Your task to perform on an android device: Search for "usb-b" on costco, select the first entry, add it to the cart, then select checkout. Image 0: 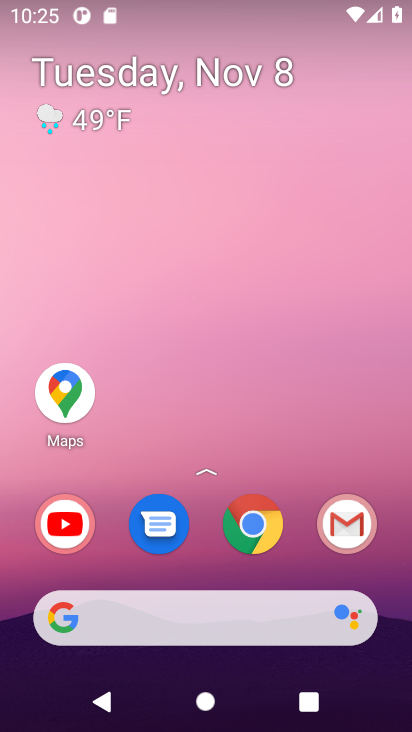
Step 0: click (261, 524)
Your task to perform on an android device: Search for "usb-b" on costco, select the first entry, add it to the cart, then select checkout. Image 1: 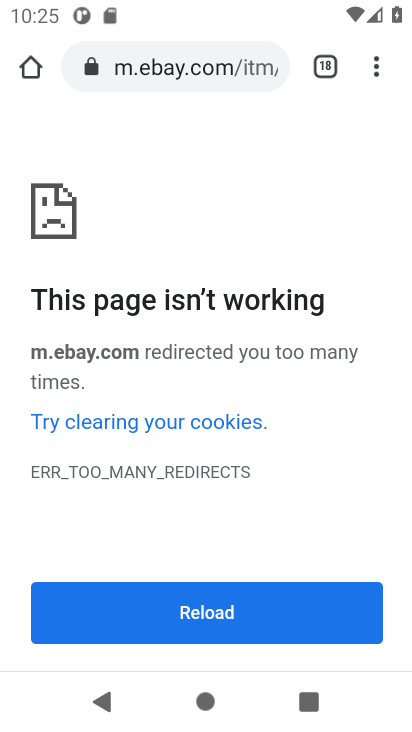
Step 1: click (169, 74)
Your task to perform on an android device: Search for "usb-b" on costco, select the first entry, add it to the cart, then select checkout. Image 2: 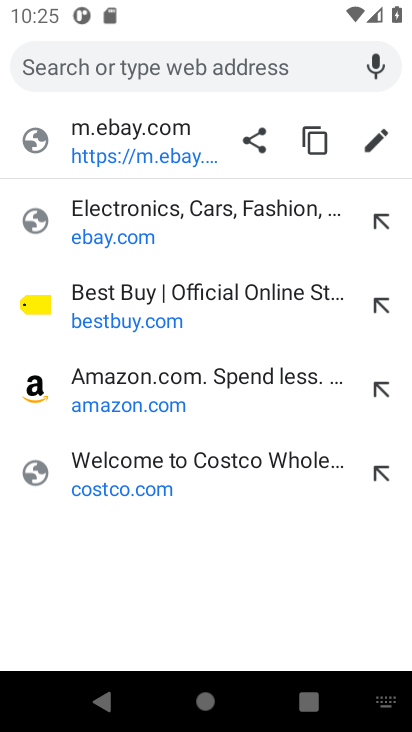
Step 2: click (121, 474)
Your task to perform on an android device: Search for "usb-b" on costco, select the first entry, add it to the cart, then select checkout. Image 3: 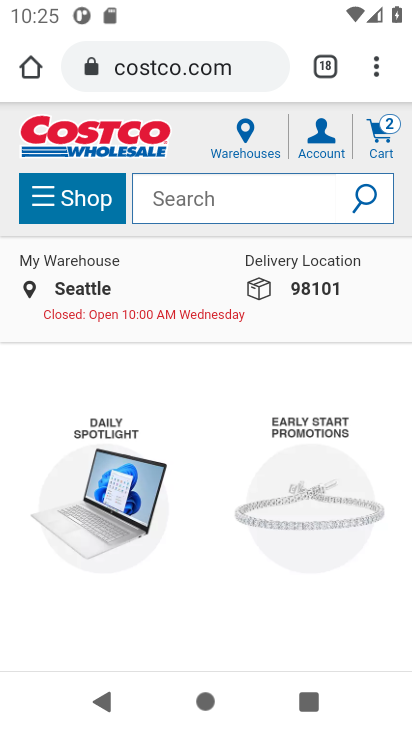
Step 3: click (176, 204)
Your task to perform on an android device: Search for "usb-b" on costco, select the first entry, add it to the cart, then select checkout. Image 4: 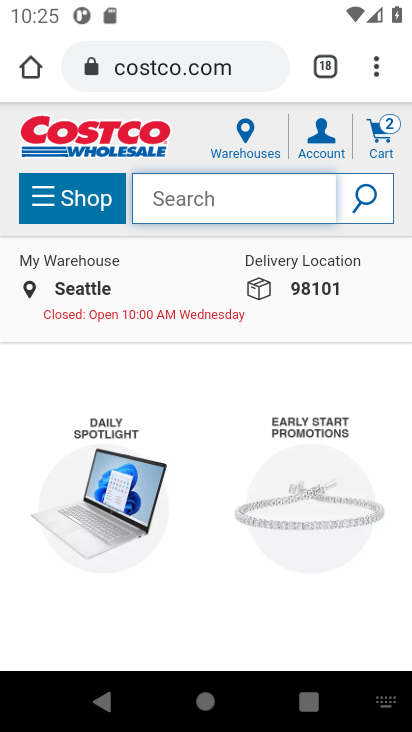
Step 4: type "usb-b"
Your task to perform on an android device: Search for "usb-b" on costco, select the first entry, add it to the cart, then select checkout. Image 5: 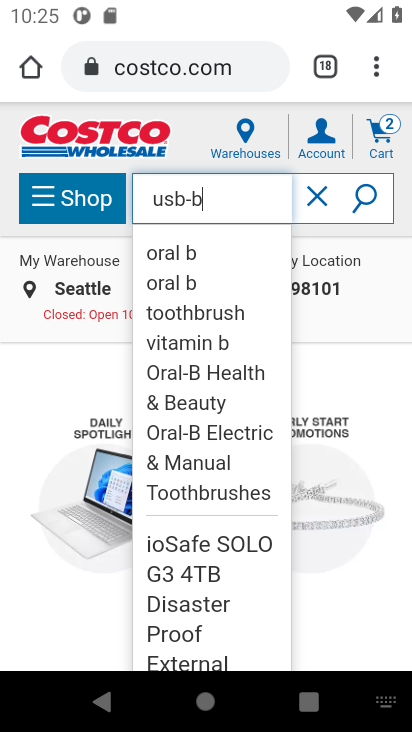
Step 5: click (359, 209)
Your task to perform on an android device: Search for "usb-b" on costco, select the first entry, add it to the cart, then select checkout. Image 6: 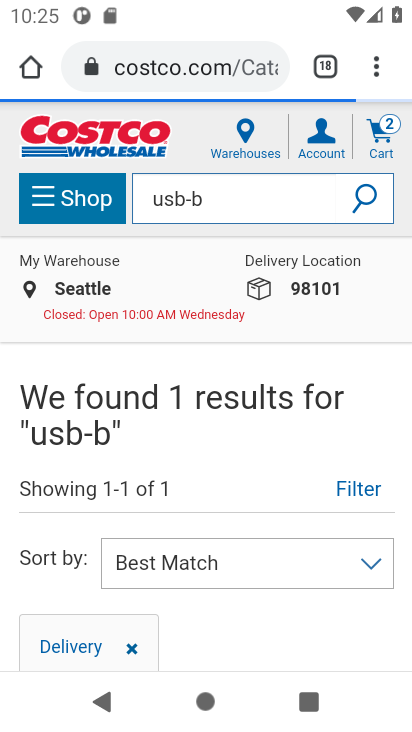
Step 6: drag from (265, 452) to (247, 214)
Your task to perform on an android device: Search for "usb-b" on costco, select the first entry, add it to the cart, then select checkout. Image 7: 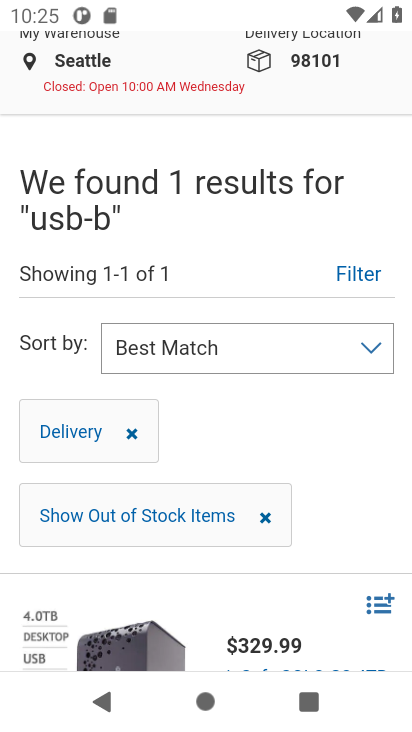
Step 7: drag from (218, 500) to (237, 200)
Your task to perform on an android device: Search for "usb-b" on costco, select the first entry, add it to the cart, then select checkout. Image 8: 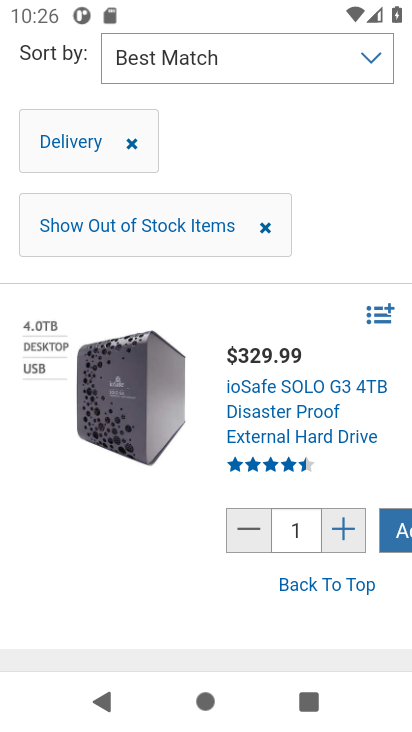
Step 8: click (186, 443)
Your task to perform on an android device: Search for "usb-b" on costco, select the first entry, add it to the cart, then select checkout. Image 9: 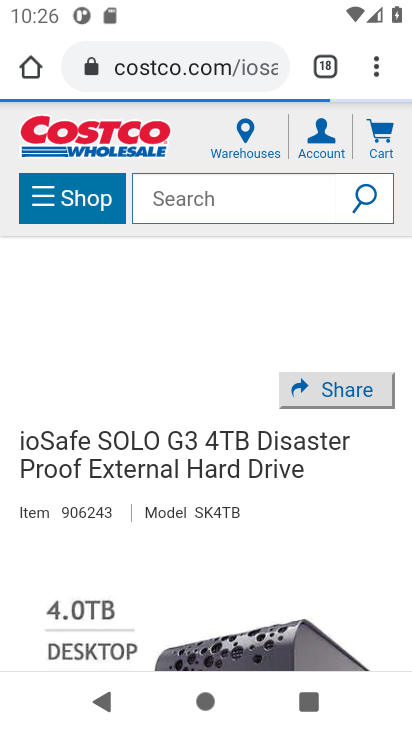
Step 9: task complete